Your task to perform on an android device: manage bookmarks in the chrome app Image 0: 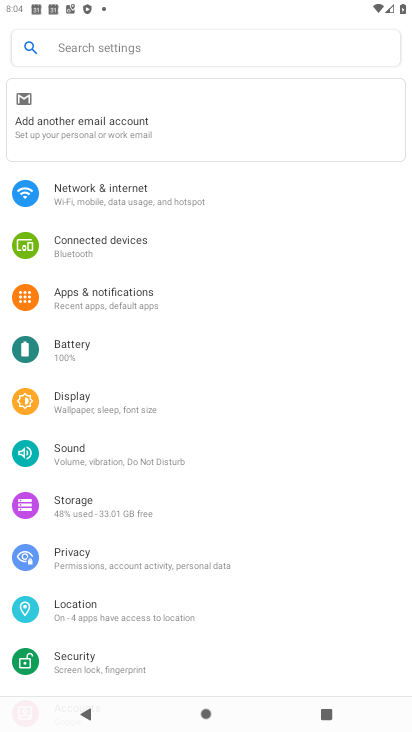
Step 0: press home button
Your task to perform on an android device: manage bookmarks in the chrome app Image 1: 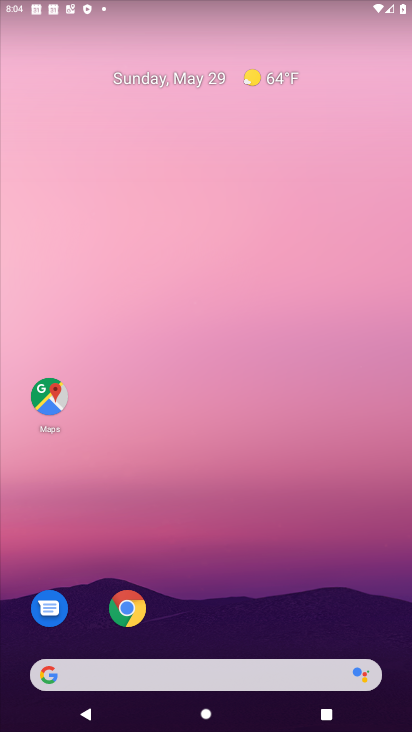
Step 1: click (133, 612)
Your task to perform on an android device: manage bookmarks in the chrome app Image 2: 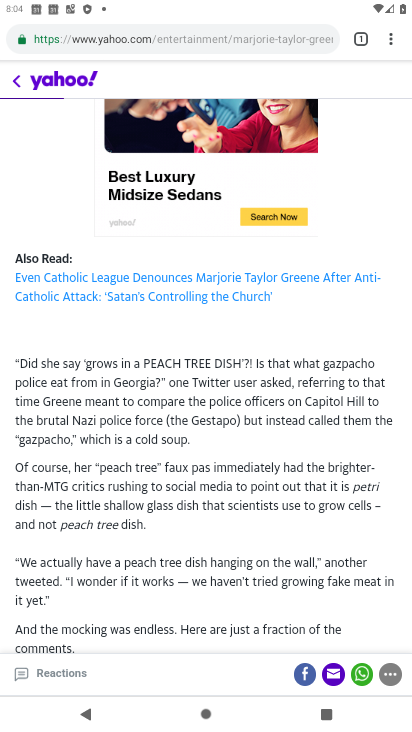
Step 2: click (392, 45)
Your task to perform on an android device: manage bookmarks in the chrome app Image 3: 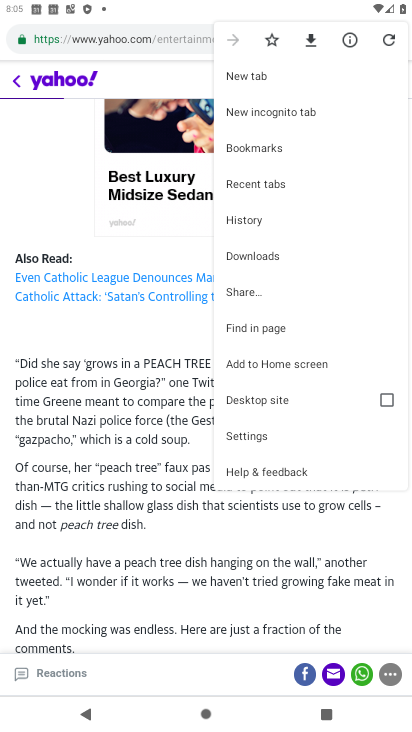
Step 3: click (256, 138)
Your task to perform on an android device: manage bookmarks in the chrome app Image 4: 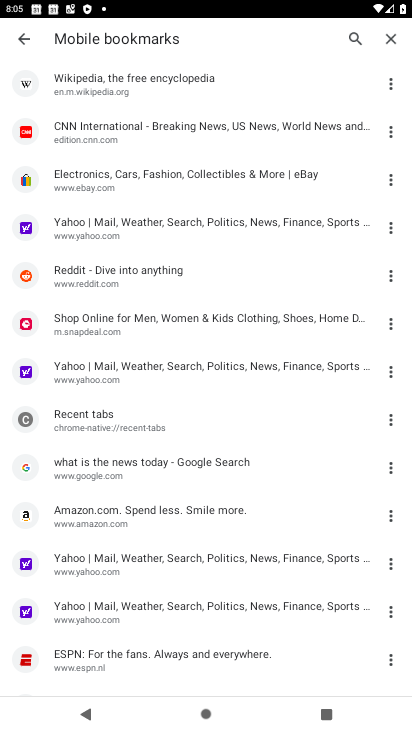
Step 4: click (392, 85)
Your task to perform on an android device: manage bookmarks in the chrome app Image 5: 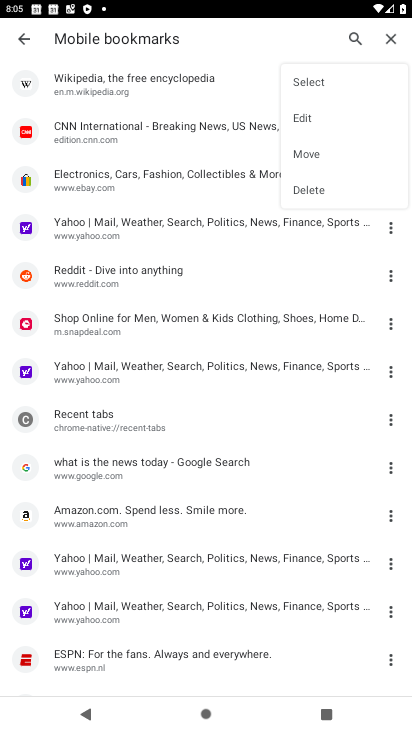
Step 5: click (307, 117)
Your task to perform on an android device: manage bookmarks in the chrome app Image 6: 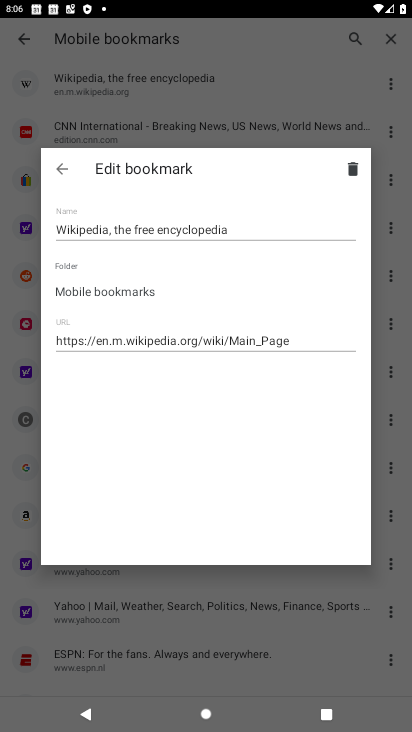
Step 6: task complete